Your task to perform on an android device: Open Chrome and go to the settings page Image 0: 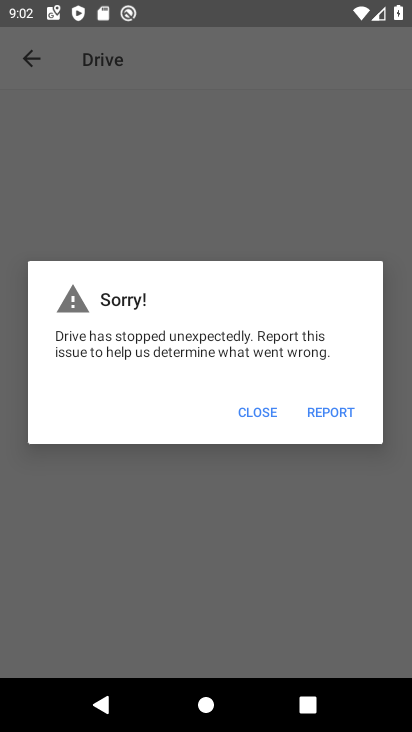
Step 0: press home button
Your task to perform on an android device: Open Chrome and go to the settings page Image 1: 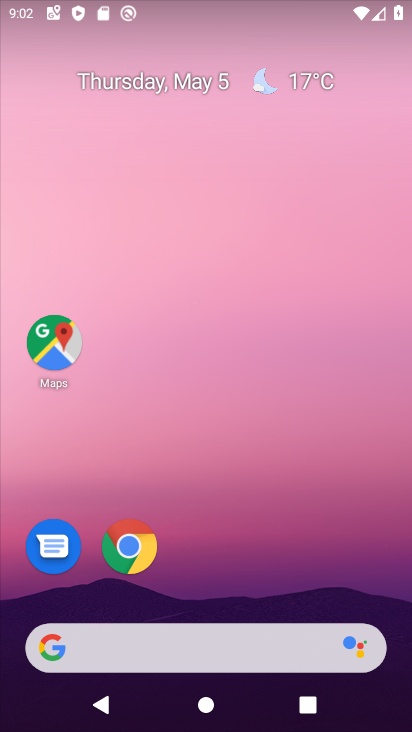
Step 1: drag from (202, 653) to (323, 304)
Your task to perform on an android device: Open Chrome and go to the settings page Image 2: 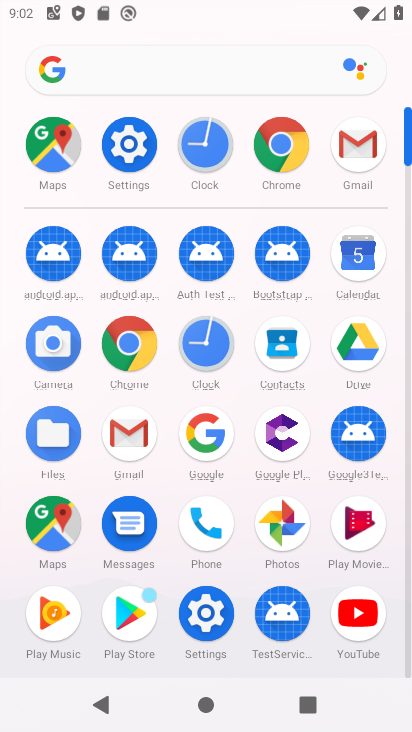
Step 2: click (282, 157)
Your task to perform on an android device: Open Chrome and go to the settings page Image 3: 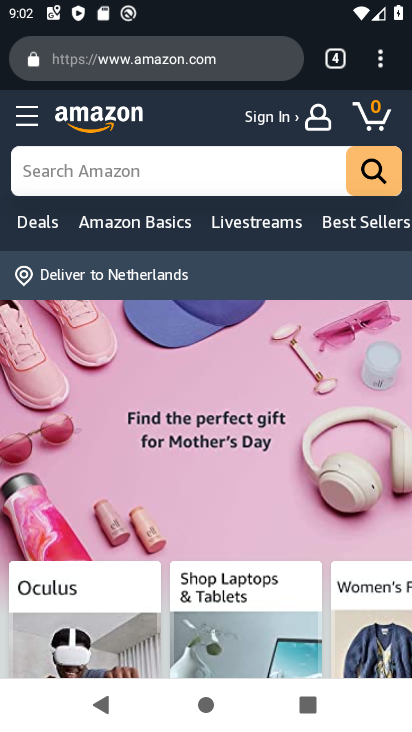
Step 3: drag from (378, 66) to (195, 572)
Your task to perform on an android device: Open Chrome and go to the settings page Image 4: 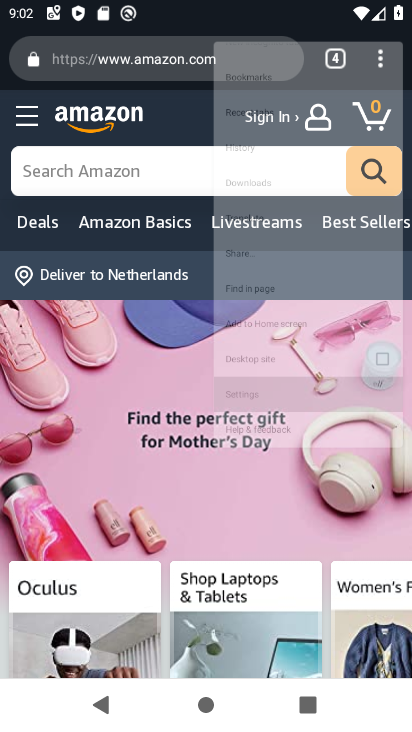
Step 4: click (195, 572)
Your task to perform on an android device: Open Chrome and go to the settings page Image 5: 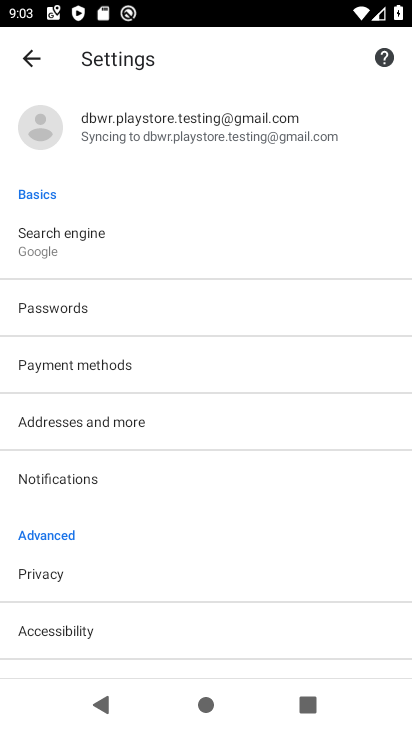
Step 5: task complete